Your task to perform on an android device: turn smart compose on in the gmail app Image 0: 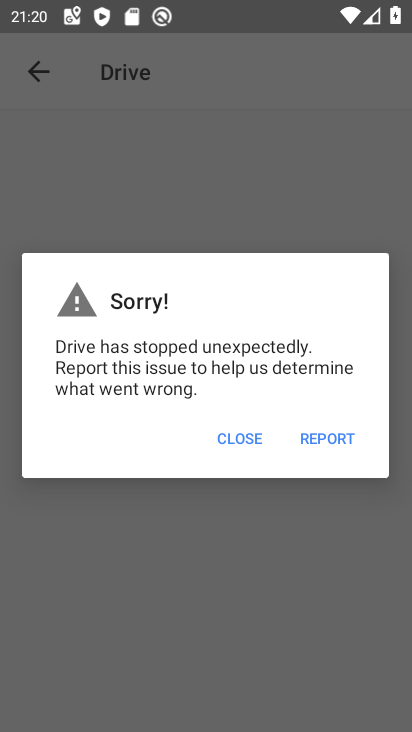
Step 0: press home button
Your task to perform on an android device: turn smart compose on in the gmail app Image 1: 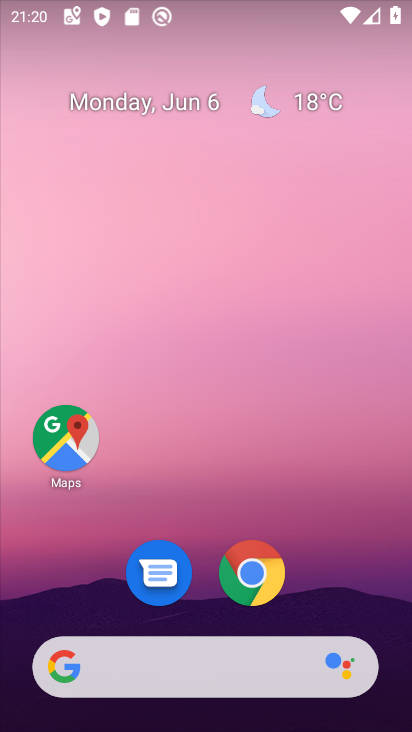
Step 1: drag from (390, 577) to (299, 197)
Your task to perform on an android device: turn smart compose on in the gmail app Image 2: 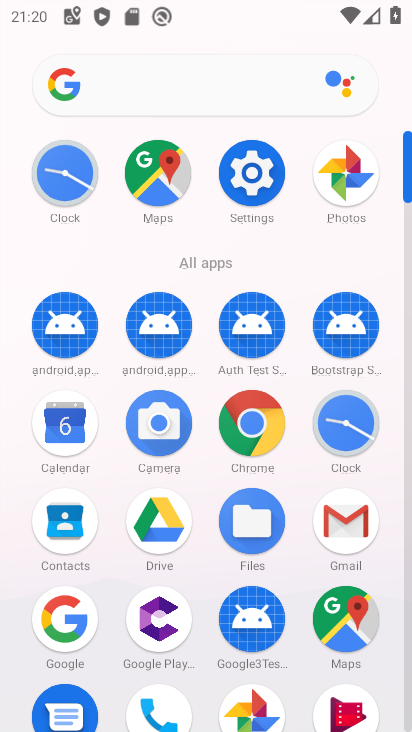
Step 2: click (353, 528)
Your task to perform on an android device: turn smart compose on in the gmail app Image 3: 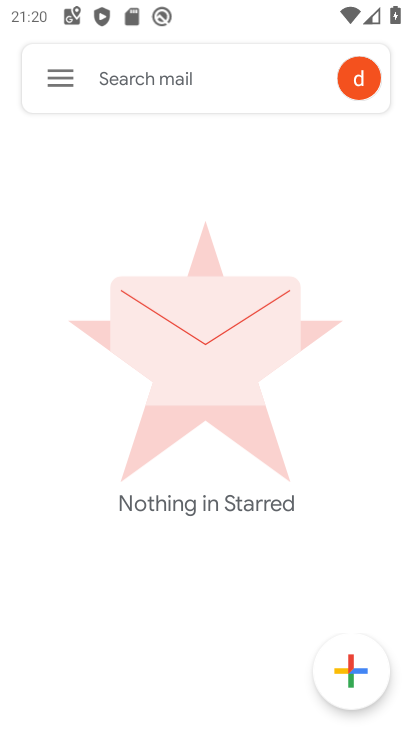
Step 3: click (52, 90)
Your task to perform on an android device: turn smart compose on in the gmail app Image 4: 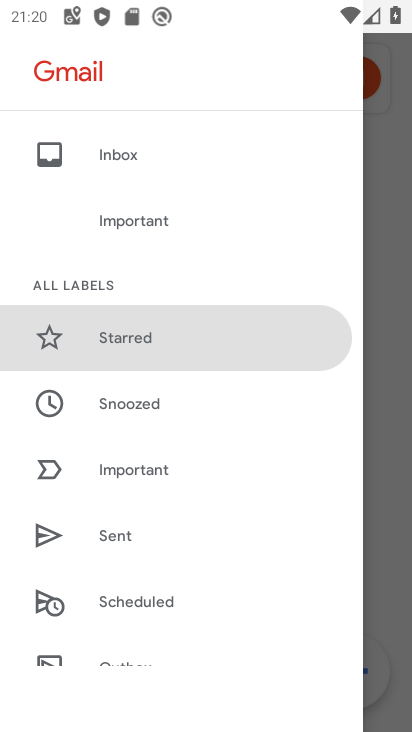
Step 4: drag from (113, 644) to (23, 10)
Your task to perform on an android device: turn smart compose on in the gmail app Image 5: 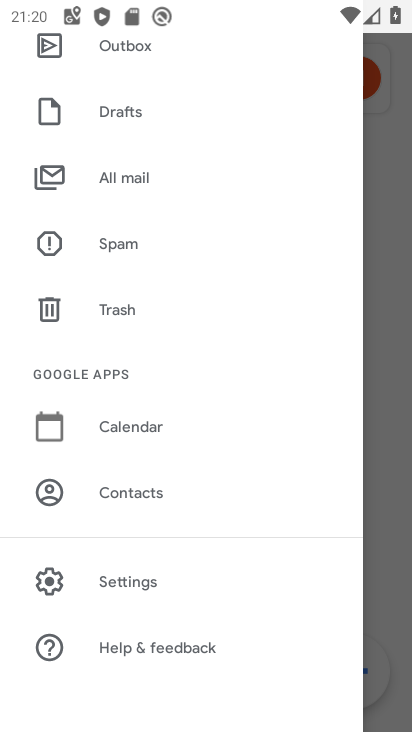
Step 5: click (140, 596)
Your task to perform on an android device: turn smart compose on in the gmail app Image 6: 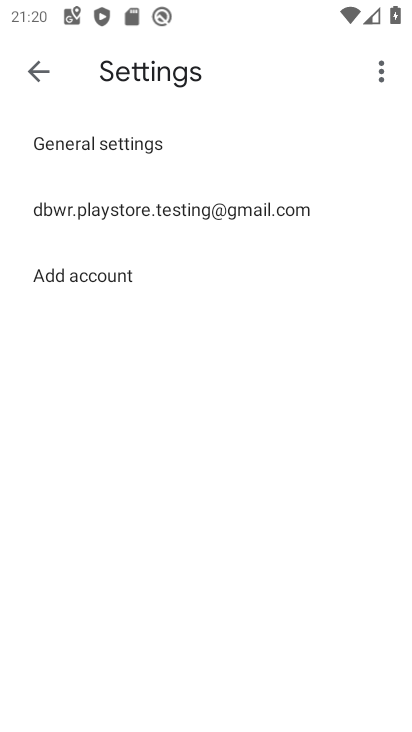
Step 6: click (205, 229)
Your task to perform on an android device: turn smart compose on in the gmail app Image 7: 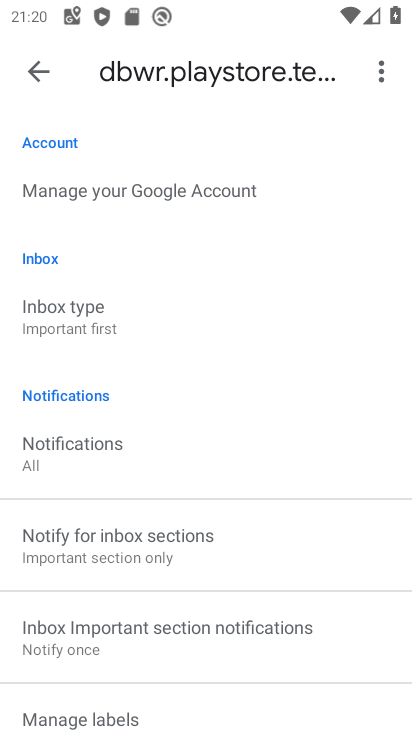
Step 7: task complete